Your task to perform on an android device: Toggle the flashlight Image 0: 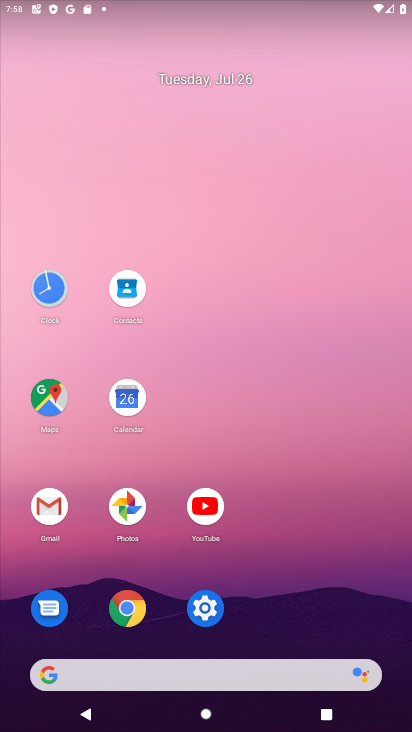
Step 0: click (207, 611)
Your task to perform on an android device: Toggle the flashlight Image 1: 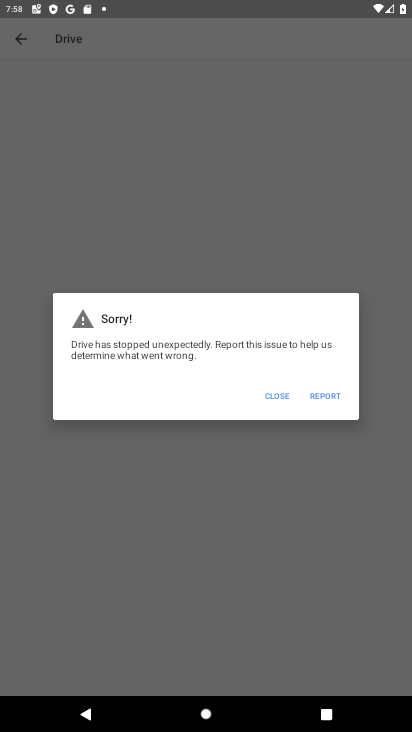
Step 1: click (277, 397)
Your task to perform on an android device: Toggle the flashlight Image 2: 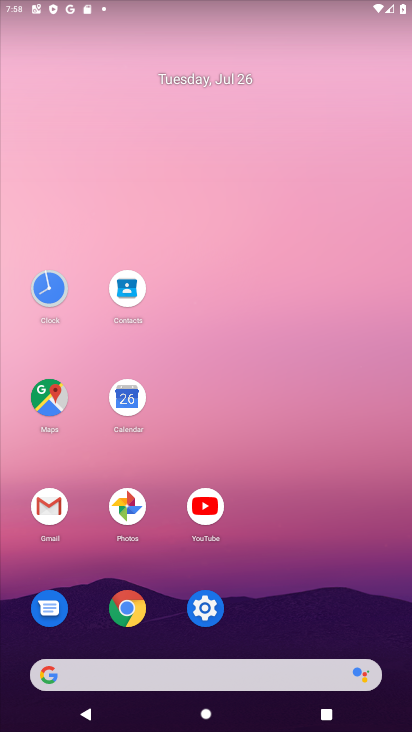
Step 2: click (202, 613)
Your task to perform on an android device: Toggle the flashlight Image 3: 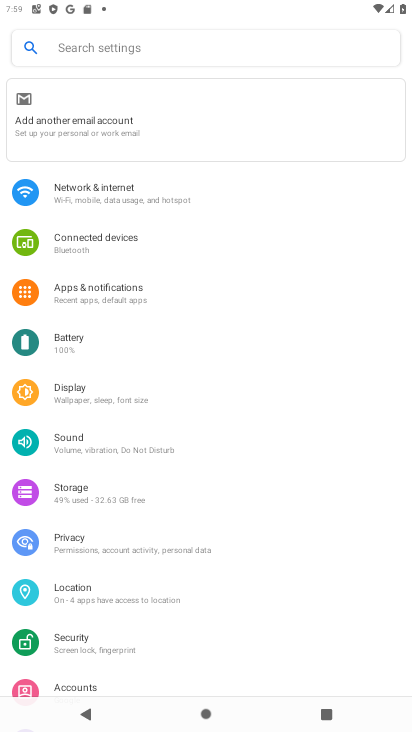
Step 3: click (77, 401)
Your task to perform on an android device: Toggle the flashlight Image 4: 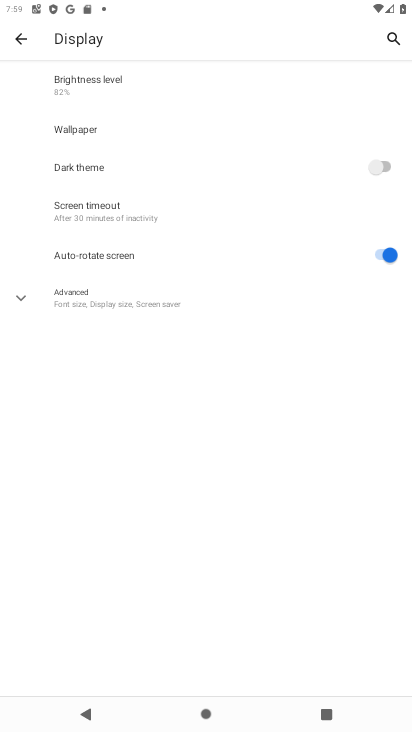
Step 4: task complete